Your task to perform on an android device: delete browsing data in the chrome app Image 0: 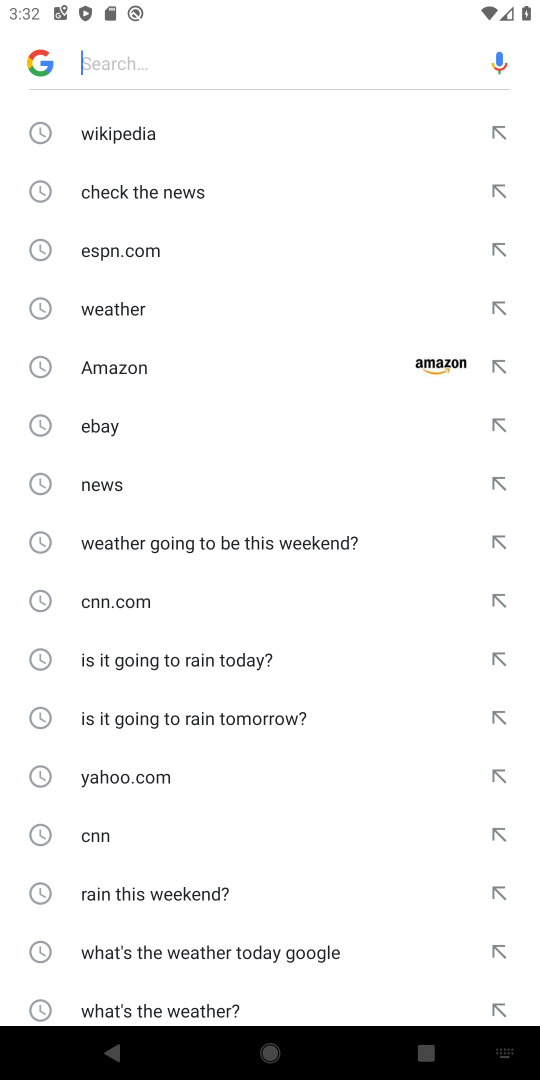
Step 0: press home button
Your task to perform on an android device: delete browsing data in the chrome app Image 1: 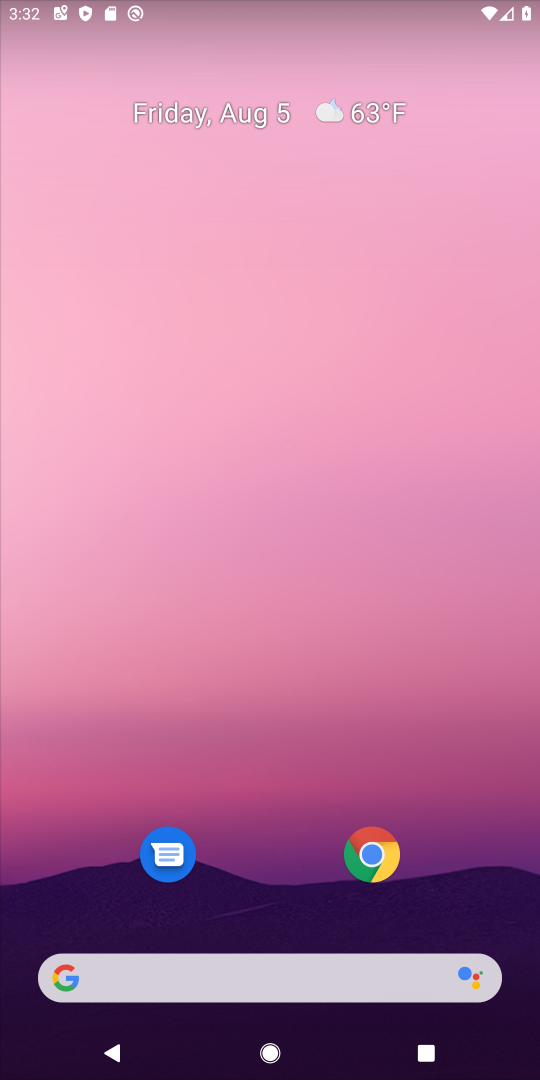
Step 1: click (375, 849)
Your task to perform on an android device: delete browsing data in the chrome app Image 2: 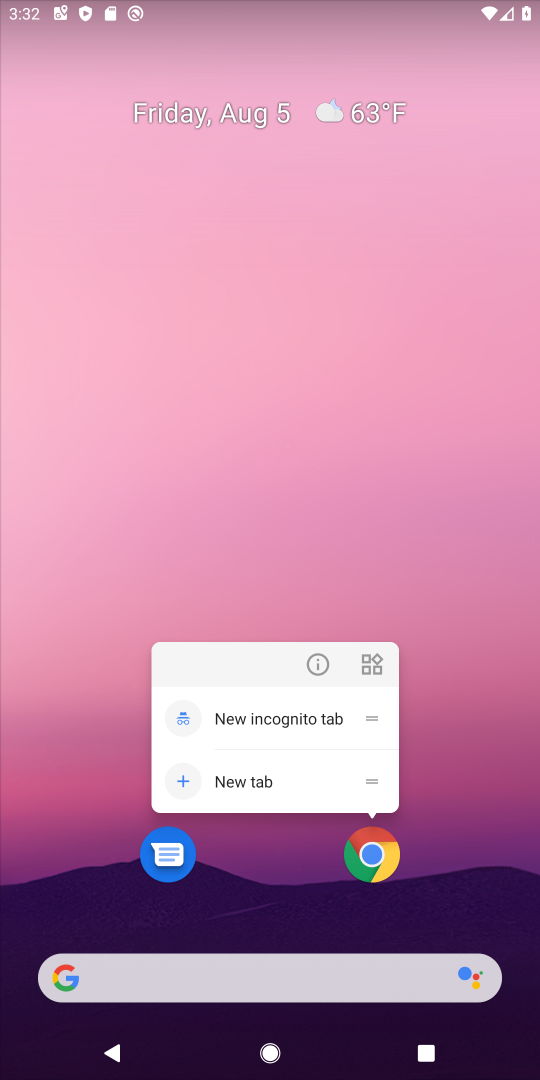
Step 2: click (375, 849)
Your task to perform on an android device: delete browsing data in the chrome app Image 3: 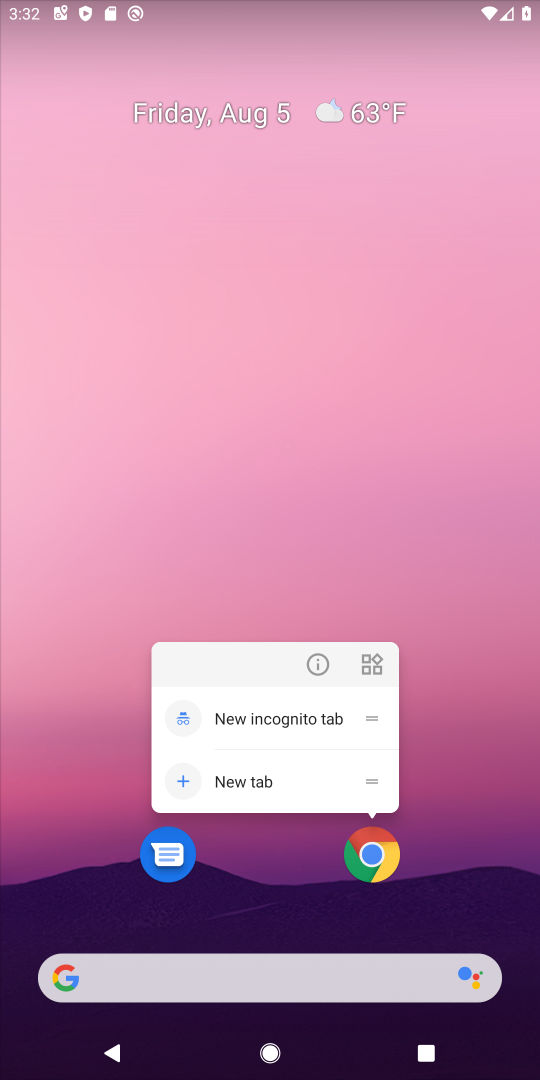
Step 3: click (375, 849)
Your task to perform on an android device: delete browsing data in the chrome app Image 4: 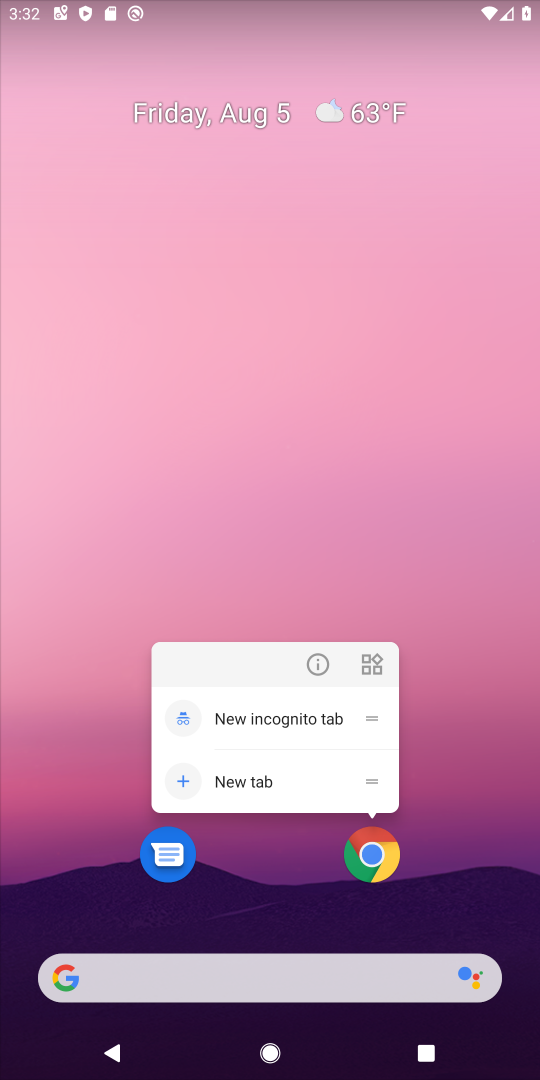
Step 4: click (375, 849)
Your task to perform on an android device: delete browsing data in the chrome app Image 5: 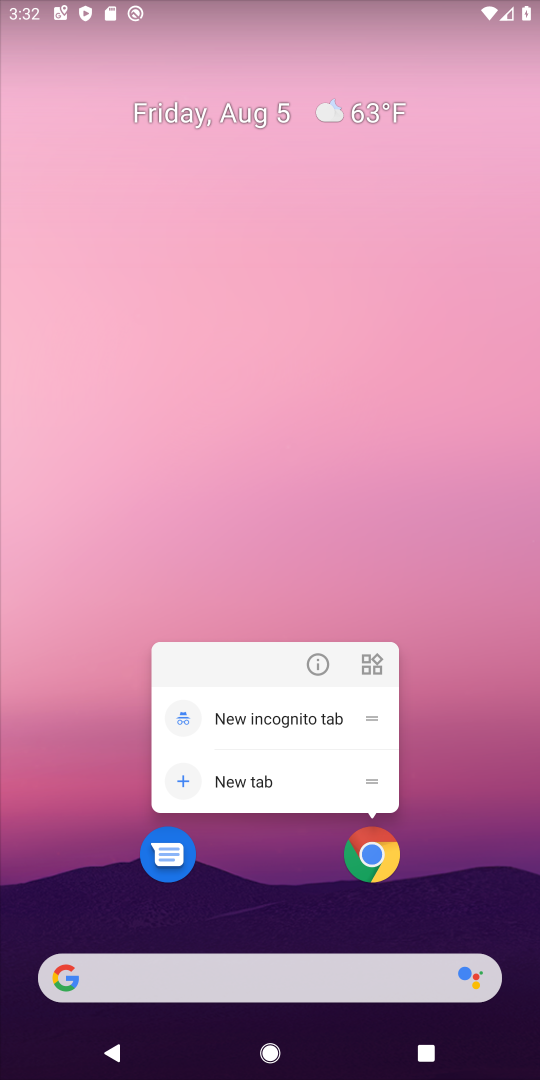
Step 5: click (375, 849)
Your task to perform on an android device: delete browsing data in the chrome app Image 6: 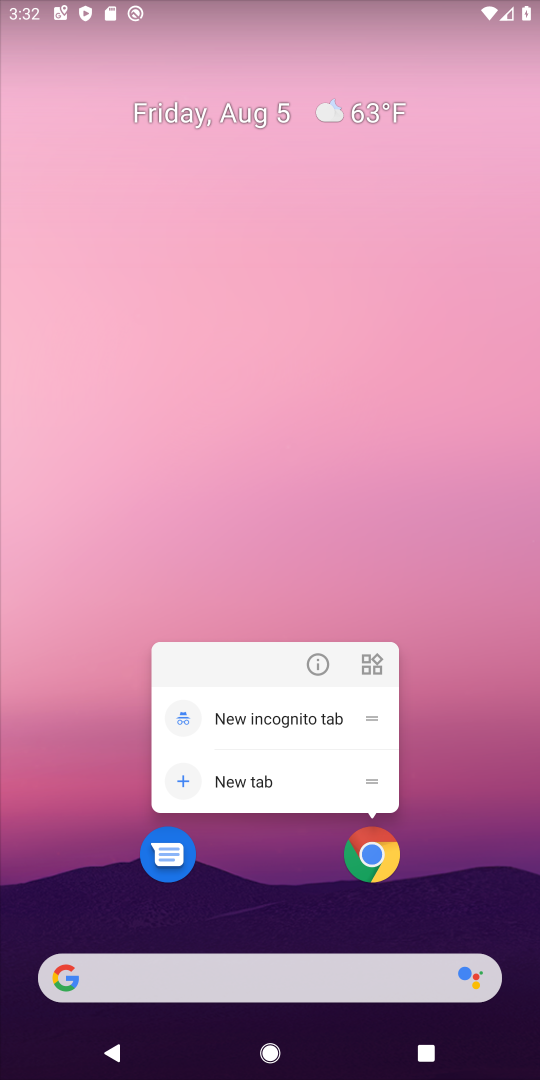
Step 6: task complete